Your task to perform on an android device: Go to Wikipedia Image 0: 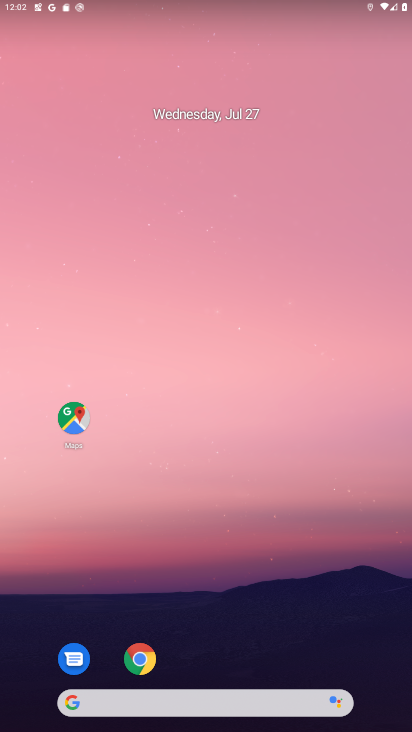
Step 0: drag from (152, 675) to (249, 15)
Your task to perform on an android device: Go to Wikipedia Image 1: 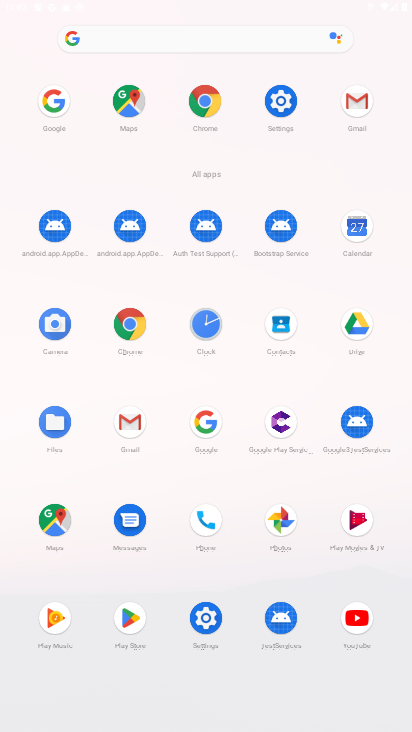
Step 1: click (113, 314)
Your task to perform on an android device: Go to Wikipedia Image 2: 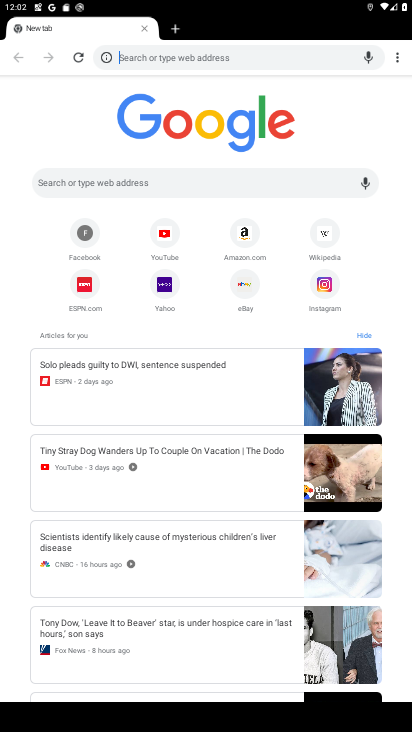
Step 2: click (327, 234)
Your task to perform on an android device: Go to Wikipedia Image 3: 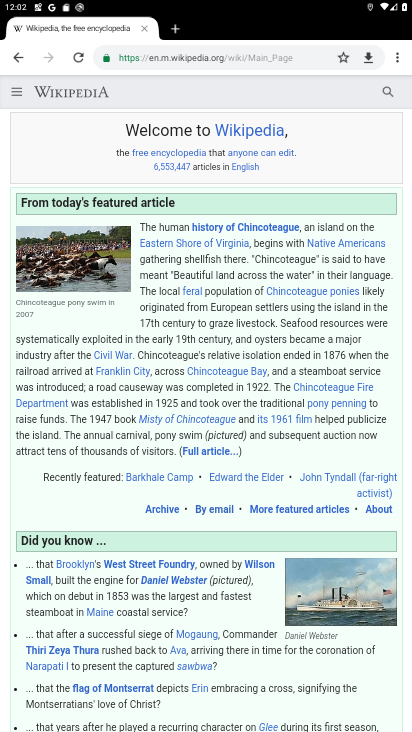
Step 3: task complete